Your task to perform on an android device: toggle priority inbox in the gmail app Image 0: 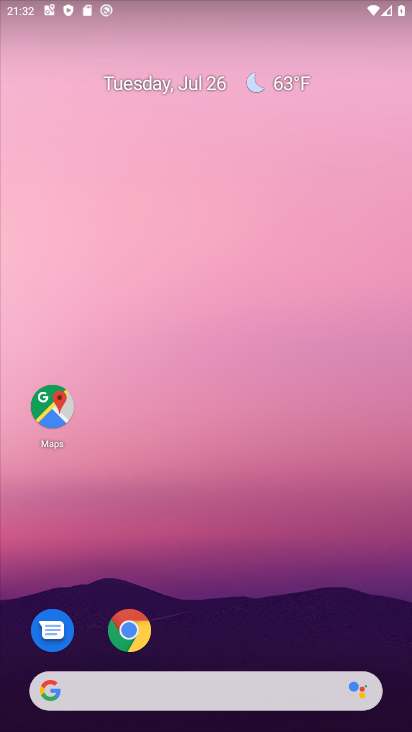
Step 0: drag from (281, 597) to (278, 258)
Your task to perform on an android device: toggle priority inbox in the gmail app Image 1: 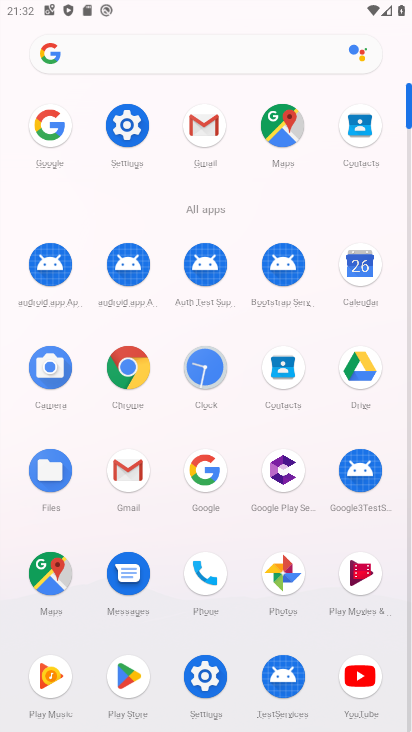
Step 1: click (203, 123)
Your task to perform on an android device: toggle priority inbox in the gmail app Image 2: 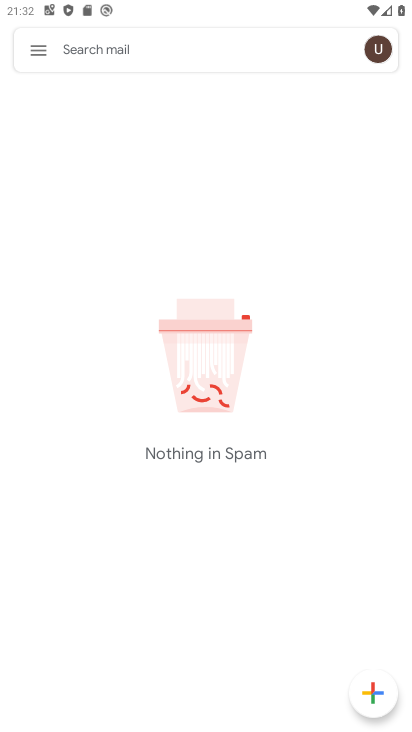
Step 2: click (34, 46)
Your task to perform on an android device: toggle priority inbox in the gmail app Image 3: 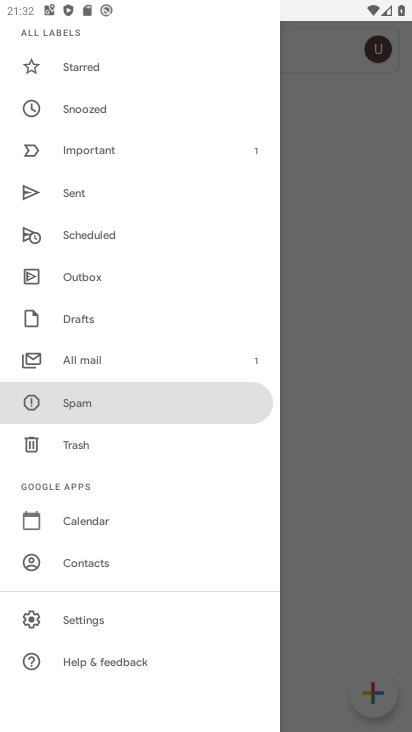
Step 3: click (95, 610)
Your task to perform on an android device: toggle priority inbox in the gmail app Image 4: 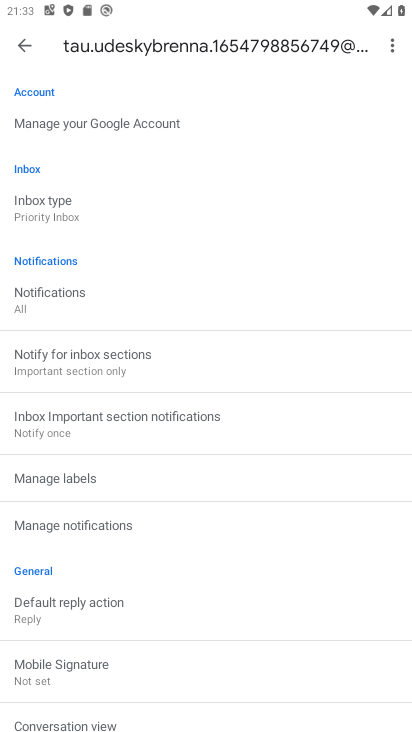
Step 4: click (98, 204)
Your task to perform on an android device: toggle priority inbox in the gmail app Image 5: 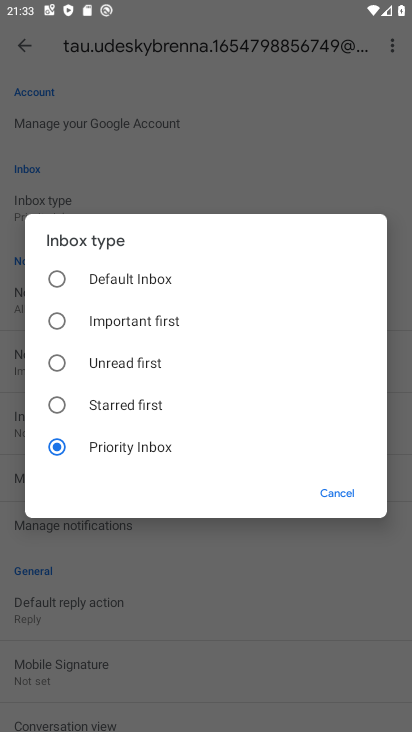
Step 5: click (89, 278)
Your task to perform on an android device: toggle priority inbox in the gmail app Image 6: 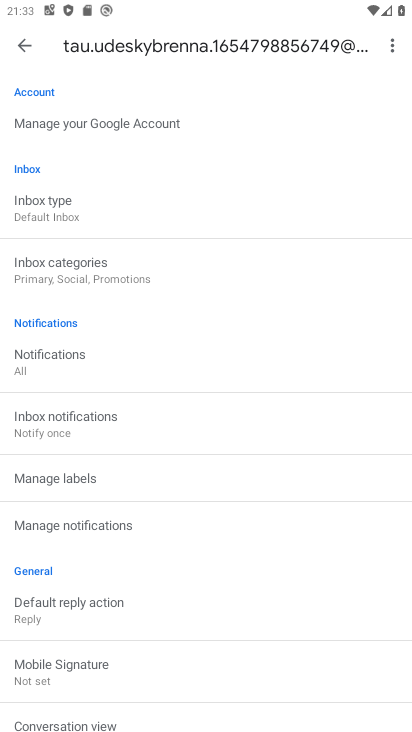
Step 6: task complete